Your task to perform on an android device: turn smart compose on in the gmail app Image 0: 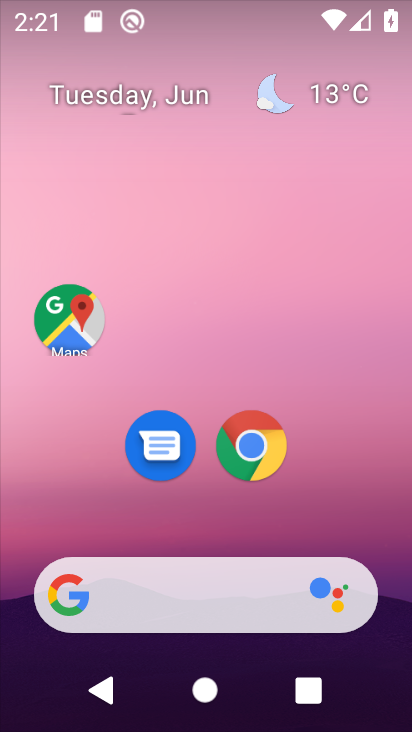
Step 0: drag from (281, 494) to (403, 81)
Your task to perform on an android device: turn smart compose on in the gmail app Image 1: 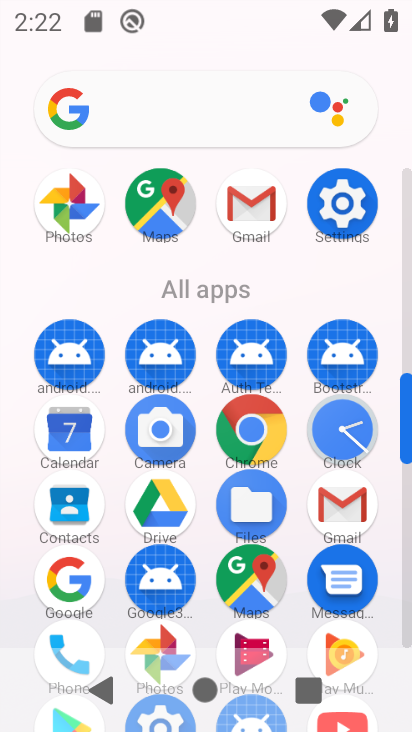
Step 1: click (262, 182)
Your task to perform on an android device: turn smart compose on in the gmail app Image 2: 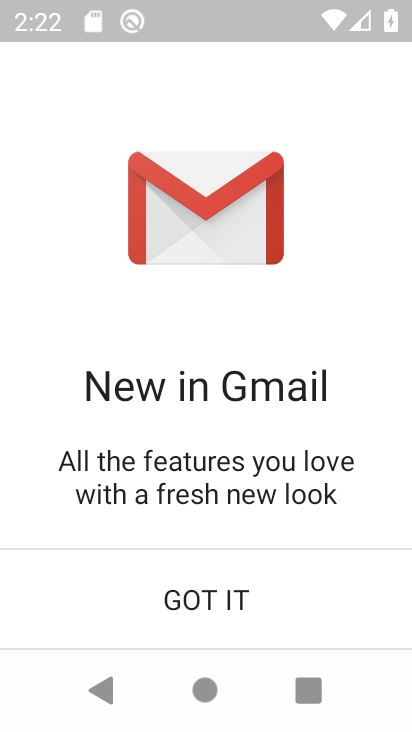
Step 2: click (291, 593)
Your task to perform on an android device: turn smart compose on in the gmail app Image 3: 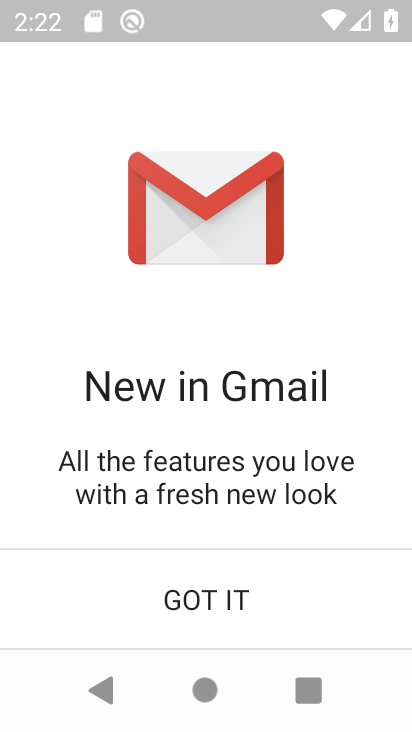
Step 3: click (301, 574)
Your task to perform on an android device: turn smart compose on in the gmail app Image 4: 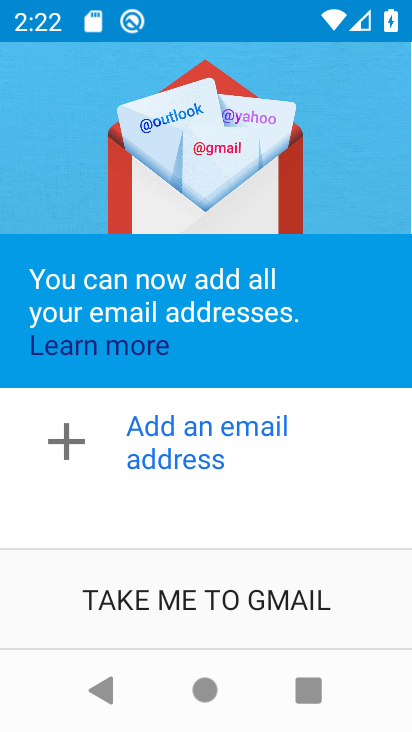
Step 4: click (301, 574)
Your task to perform on an android device: turn smart compose on in the gmail app Image 5: 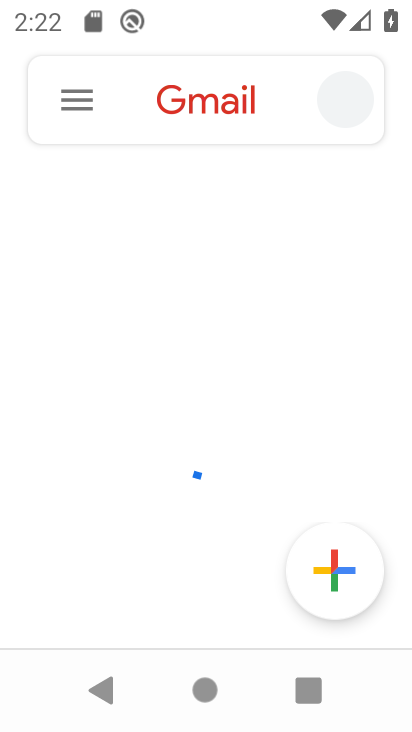
Step 5: click (51, 103)
Your task to perform on an android device: turn smart compose on in the gmail app Image 6: 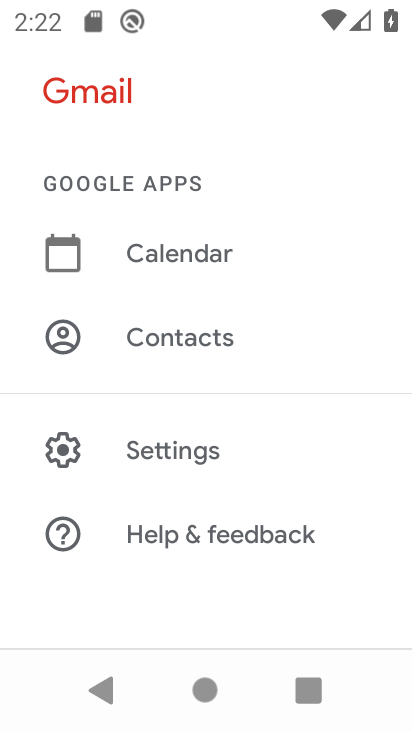
Step 6: click (205, 429)
Your task to perform on an android device: turn smart compose on in the gmail app Image 7: 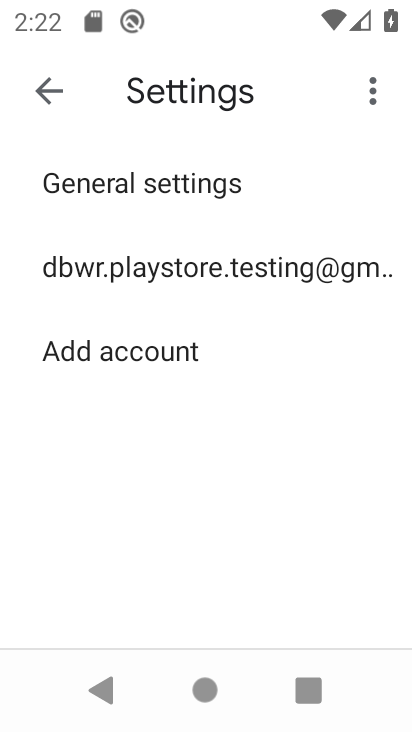
Step 7: click (321, 256)
Your task to perform on an android device: turn smart compose on in the gmail app Image 8: 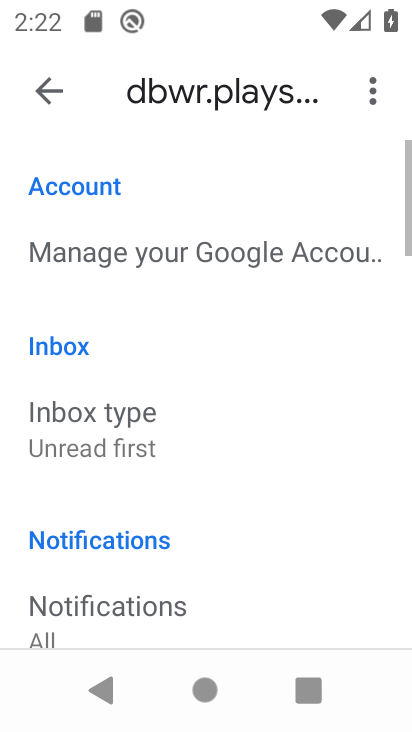
Step 8: task complete